Your task to perform on an android device: Open Chrome and go to settings Image 0: 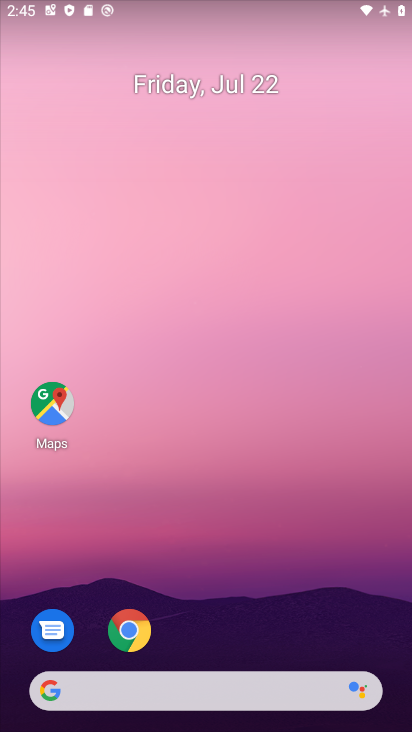
Step 0: drag from (218, 660) to (110, 73)
Your task to perform on an android device: Open Chrome and go to settings Image 1: 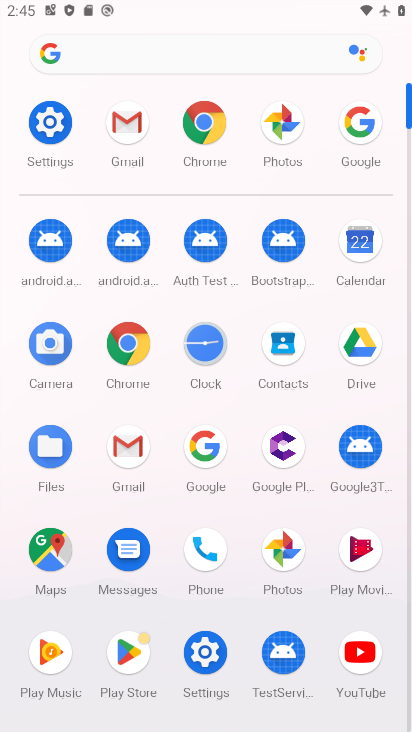
Step 1: click (123, 369)
Your task to perform on an android device: Open Chrome and go to settings Image 2: 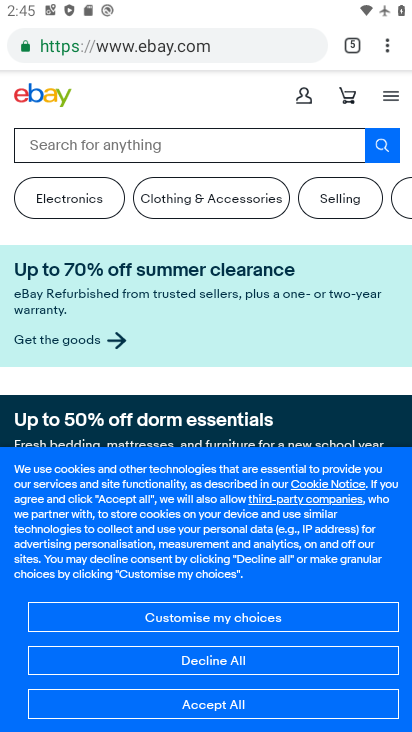
Step 2: click (386, 51)
Your task to perform on an android device: Open Chrome and go to settings Image 3: 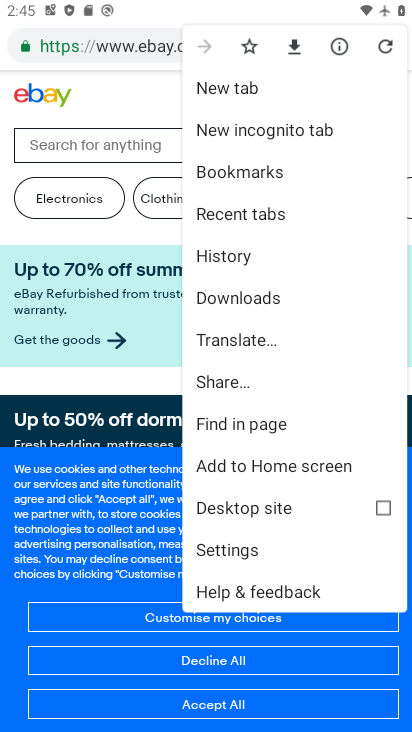
Step 3: click (258, 551)
Your task to perform on an android device: Open Chrome and go to settings Image 4: 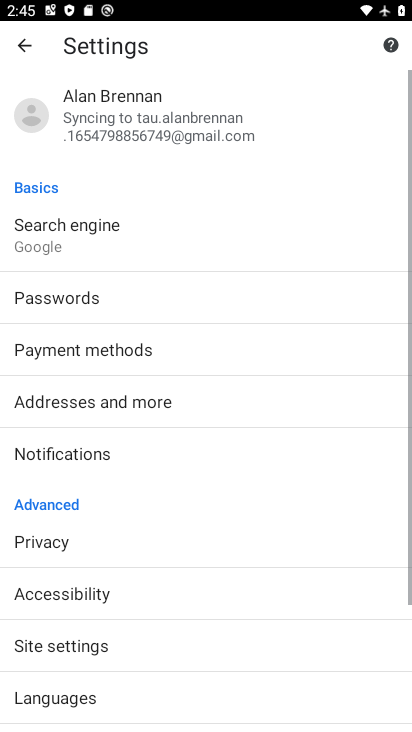
Step 4: task complete